Your task to perform on an android device: Open Google Maps Image 0: 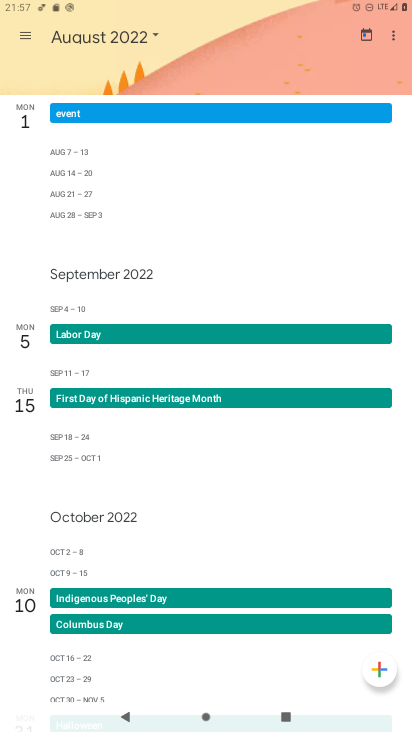
Step 0: press home button
Your task to perform on an android device: Open Google Maps Image 1: 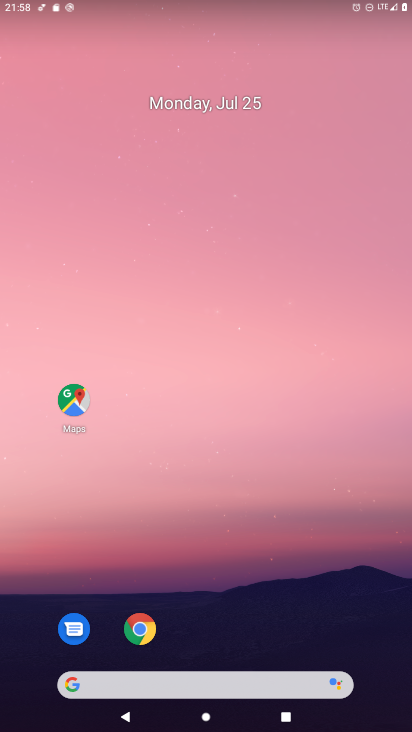
Step 1: click (73, 400)
Your task to perform on an android device: Open Google Maps Image 2: 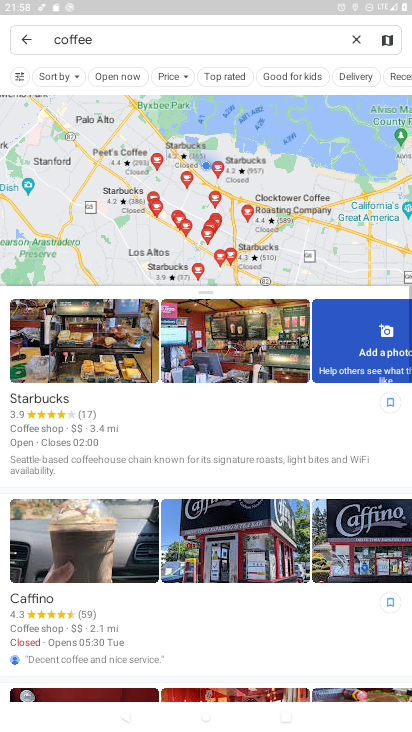
Step 2: task complete